Your task to perform on an android device: Go to display settings Image 0: 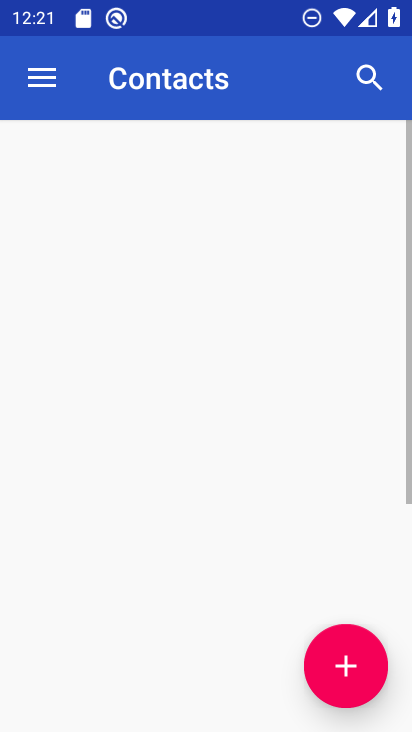
Step 0: drag from (237, 605) to (240, 194)
Your task to perform on an android device: Go to display settings Image 1: 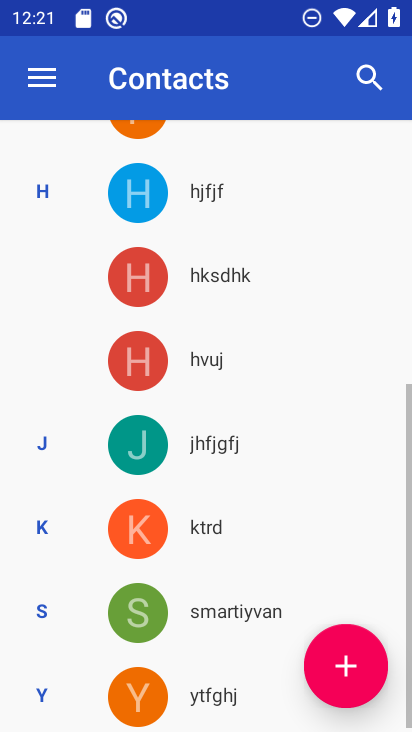
Step 1: press home button
Your task to perform on an android device: Go to display settings Image 2: 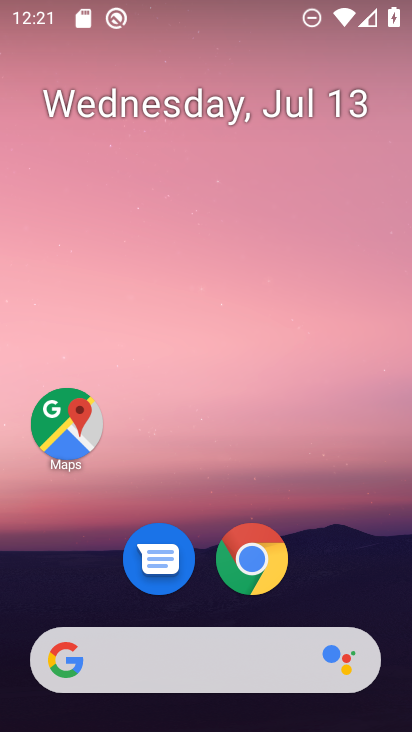
Step 2: drag from (213, 602) to (208, 277)
Your task to perform on an android device: Go to display settings Image 3: 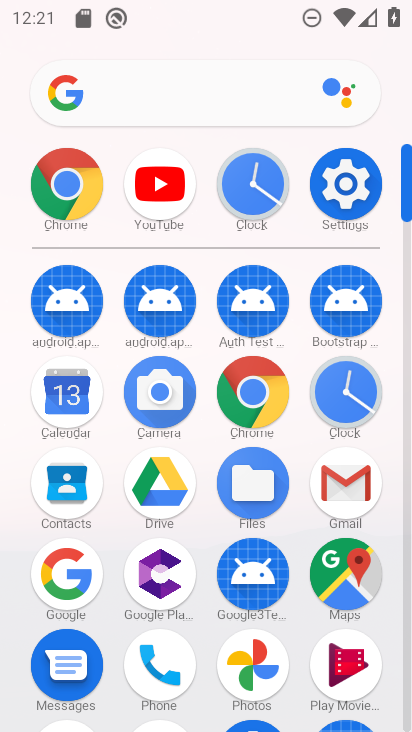
Step 3: click (356, 196)
Your task to perform on an android device: Go to display settings Image 4: 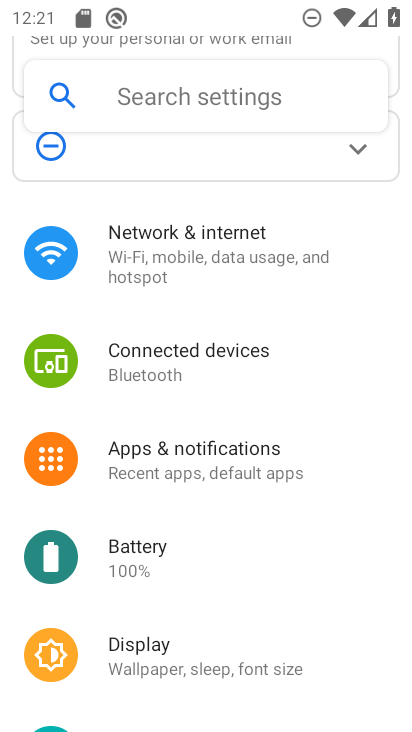
Step 4: click (164, 670)
Your task to perform on an android device: Go to display settings Image 5: 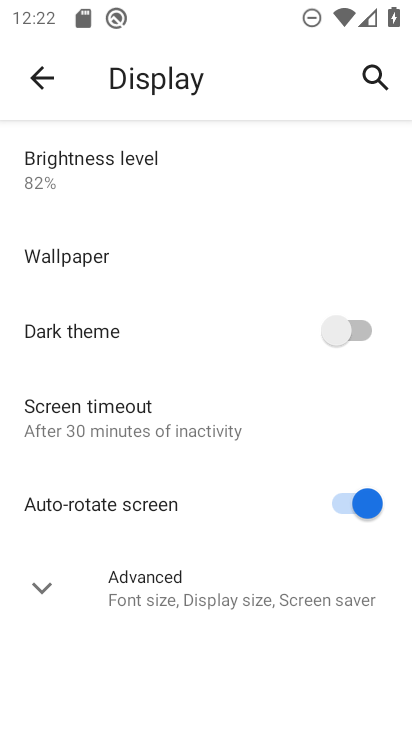
Step 5: task complete